Your task to perform on an android device: Set an alarm for 3pm Image 0: 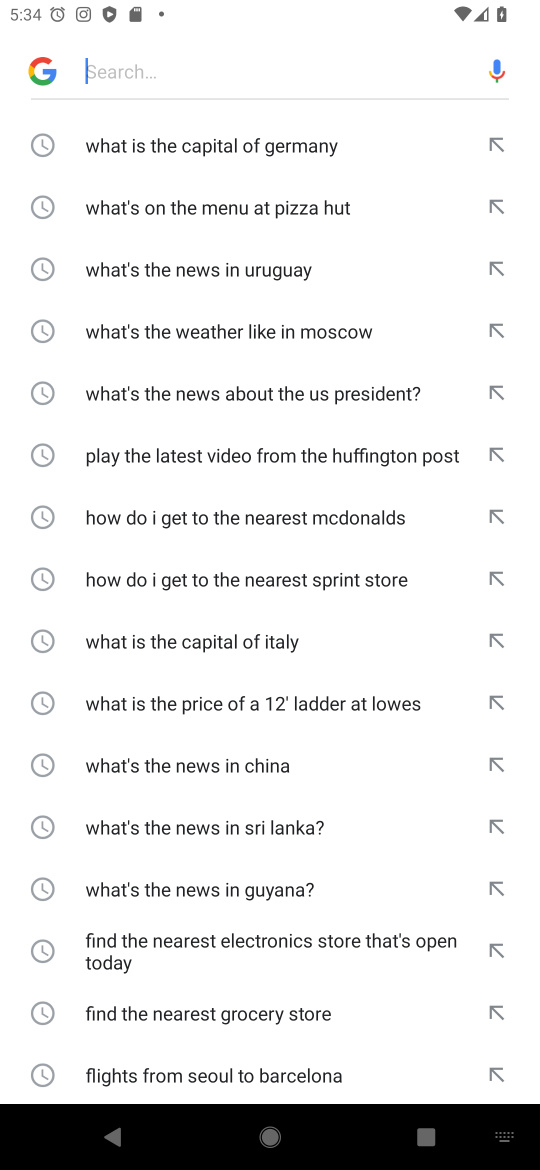
Step 0: press home button
Your task to perform on an android device: Set an alarm for 3pm Image 1: 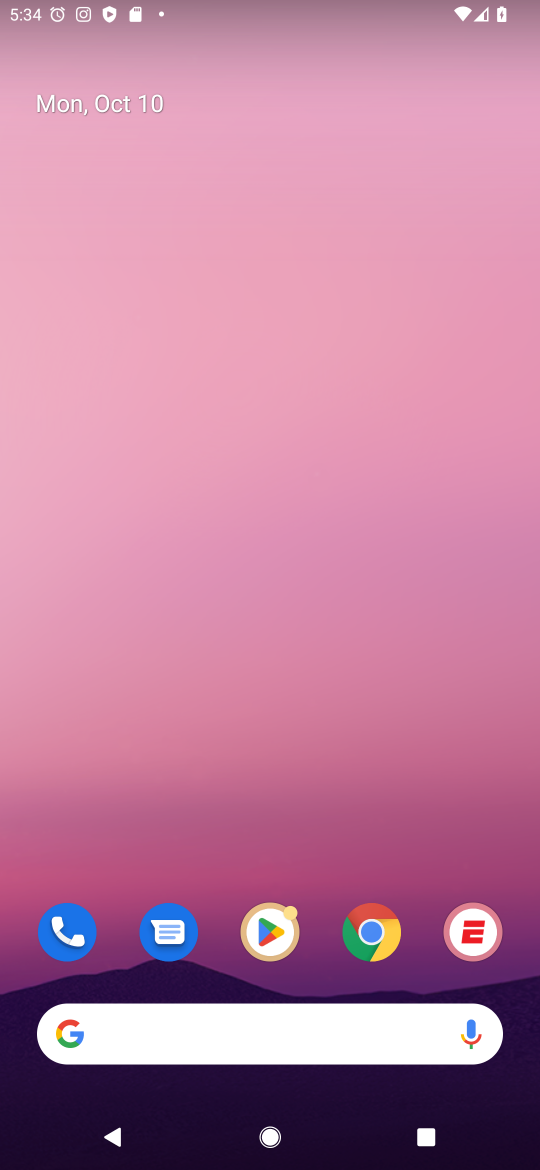
Step 1: drag from (429, 837) to (391, 29)
Your task to perform on an android device: Set an alarm for 3pm Image 2: 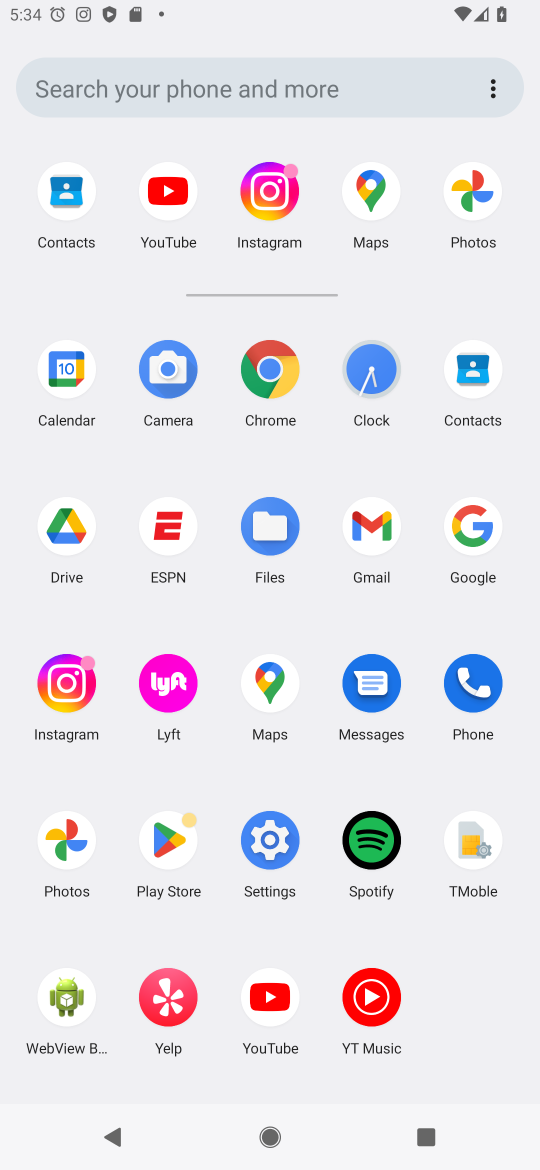
Step 2: click (375, 369)
Your task to perform on an android device: Set an alarm for 3pm Image 3: 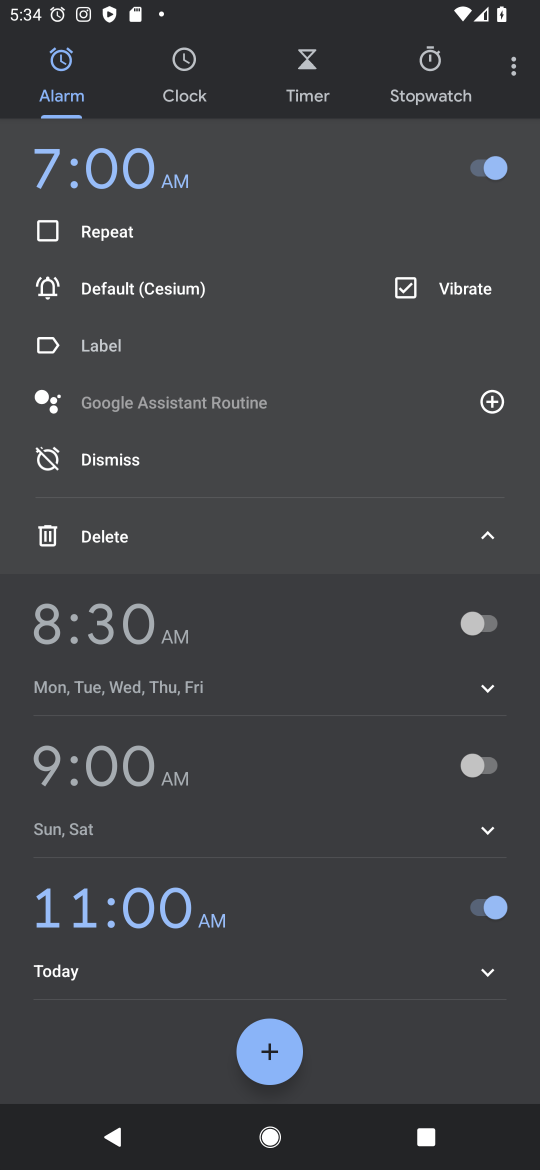
Step 3: click (264, 1050)
Your task to perform on an android device: Set an alarm for 3pm Image 4: 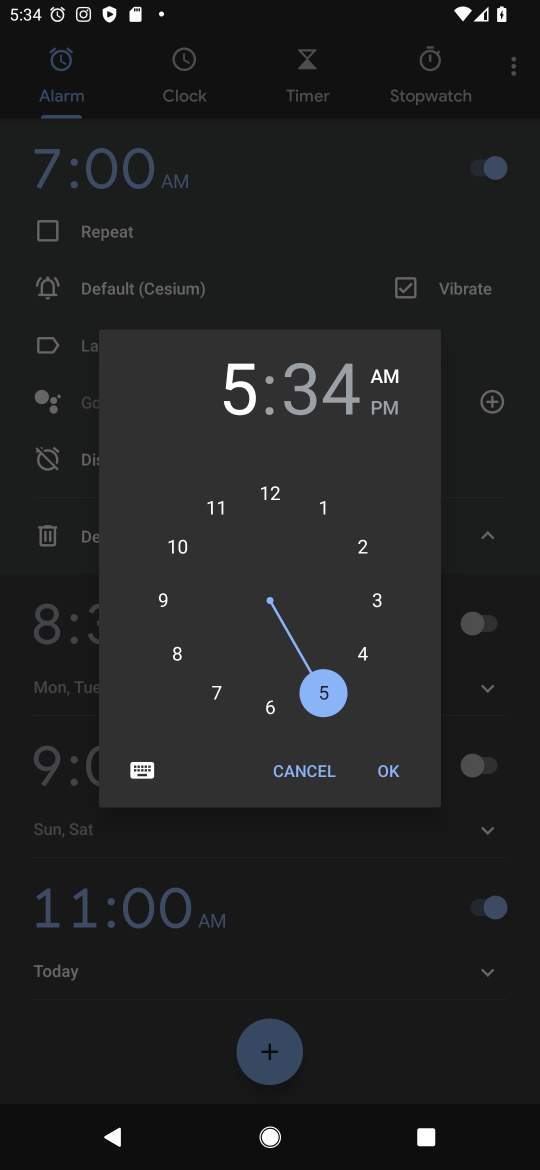
Step 4: click (376, 592)
Your task to perform on an android device: Set an alarm for 3pm Image 5: 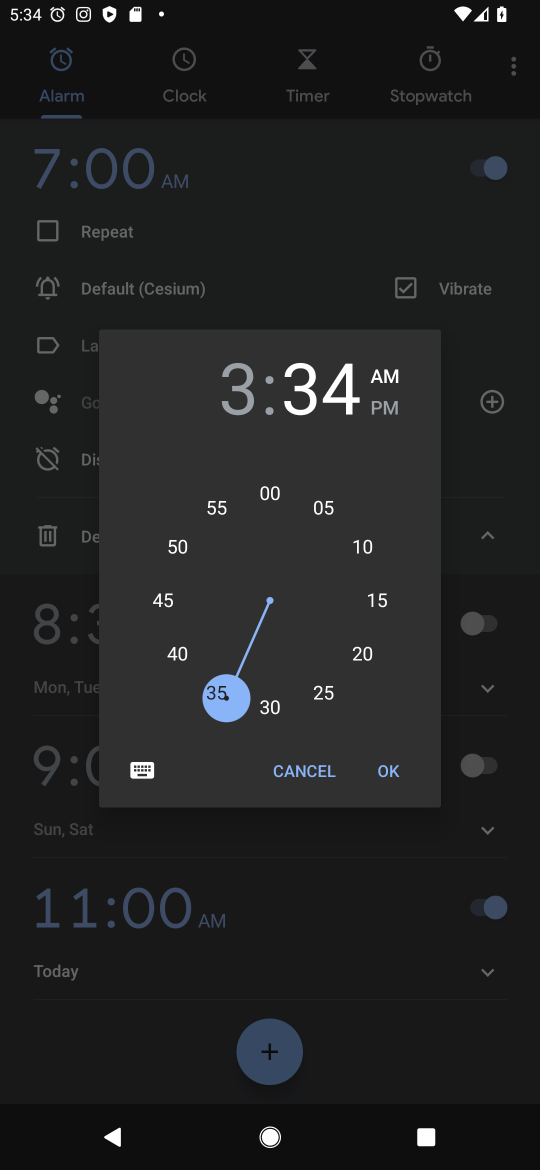
Step 5: click (266, 493)
Your task to perform on an android device: Set an alarm for 3pm Image 6: 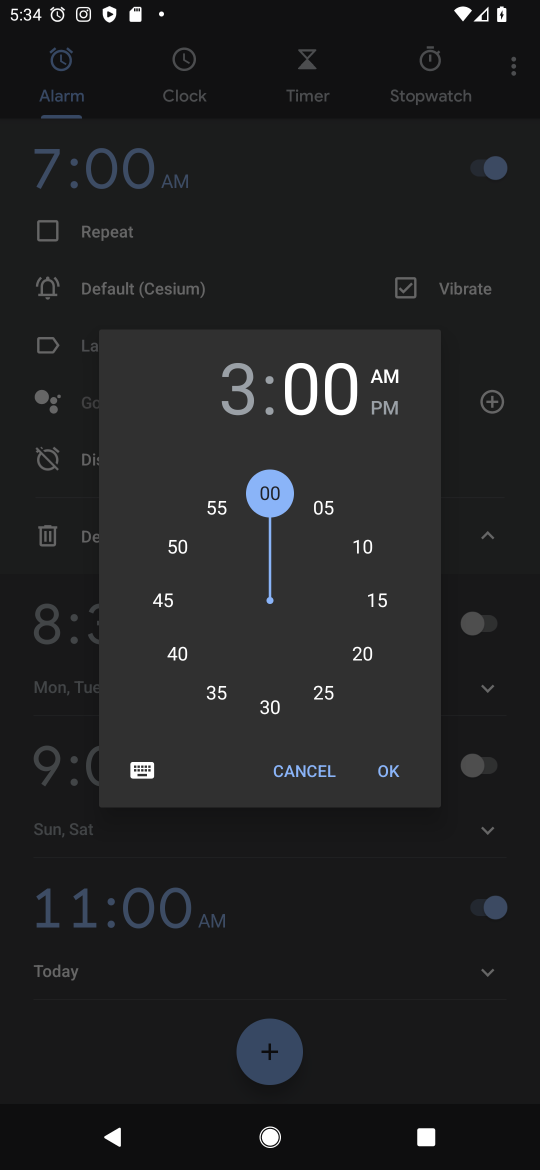
Step 6: click (388, 401)
Your task to perform on an android device: Set an alarm for 3pm Image 7: 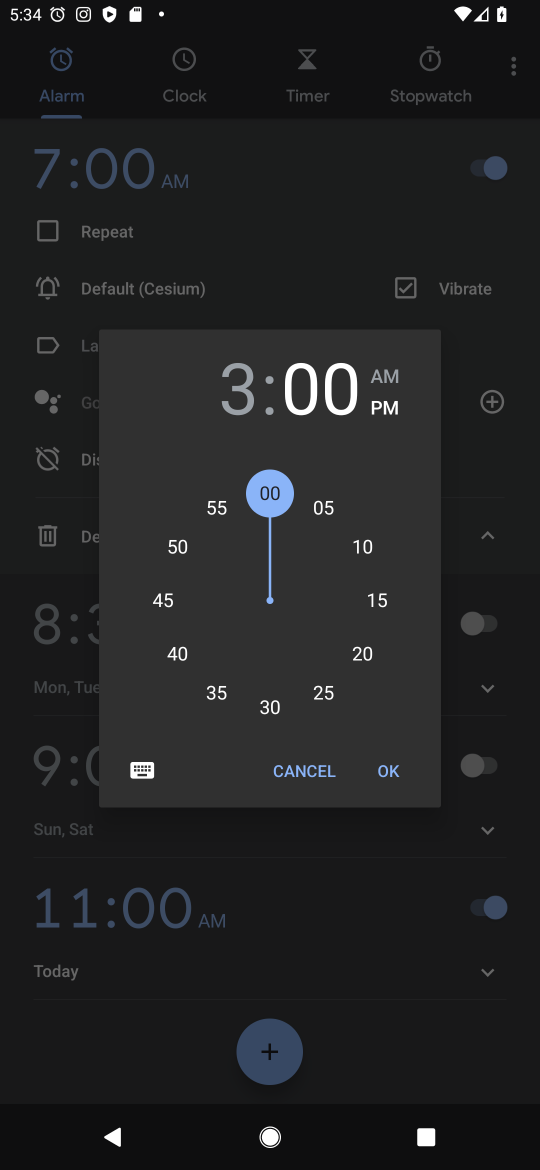
Step 7: click (377, 778)
Your task to perform on an android device: Set an alarm for 3pm Image 8: 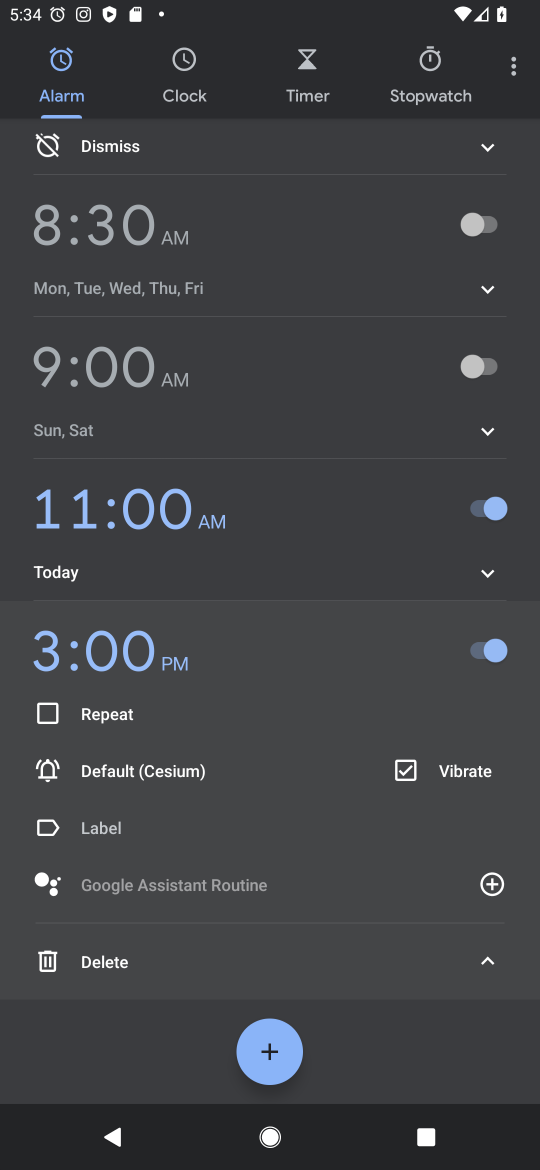
Step 8: task complete